Your task to perform on an android device: Show me popular videos on Youtube Image 0: 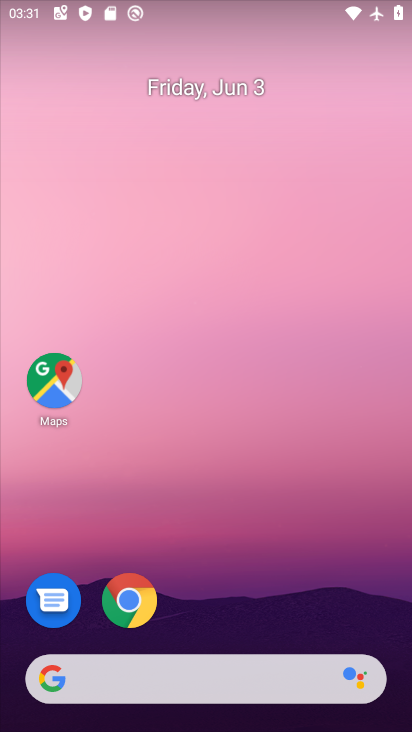
Step 0: drag from (226, 628) to (249, 68)
Your task to perform on an android device: Show me popular videos on Youtube Image 1: 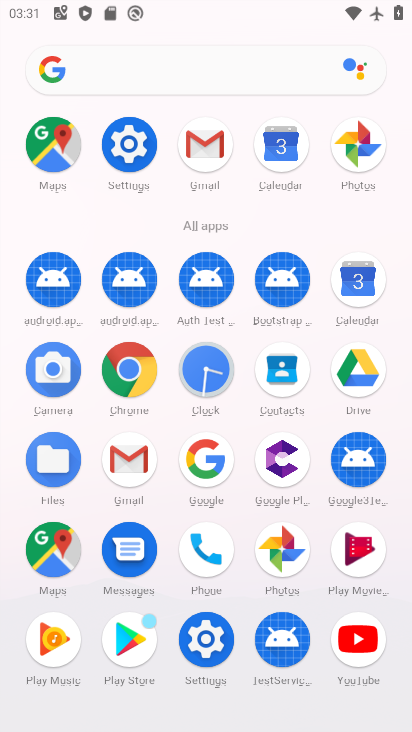
Step 1: click (351, 655)
Your task to perform on an android device: Show me popular videos on Youtube Image 2: 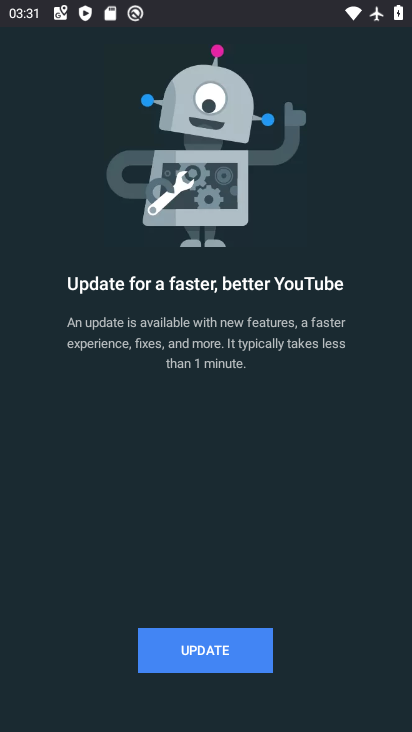
Step 2: click (176, 650)
Your task to perform on an android device: Show me popular videos on Youtube Image 3: 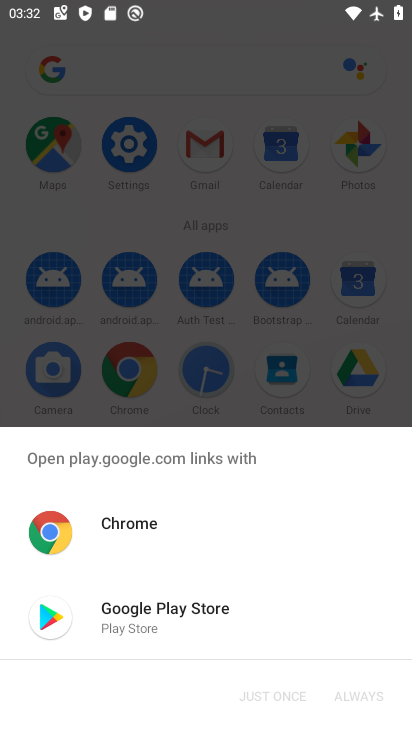
Step 3: click (177, 613)
Your task to perform on an android device: Show me popular videos on Youtube Image 4: 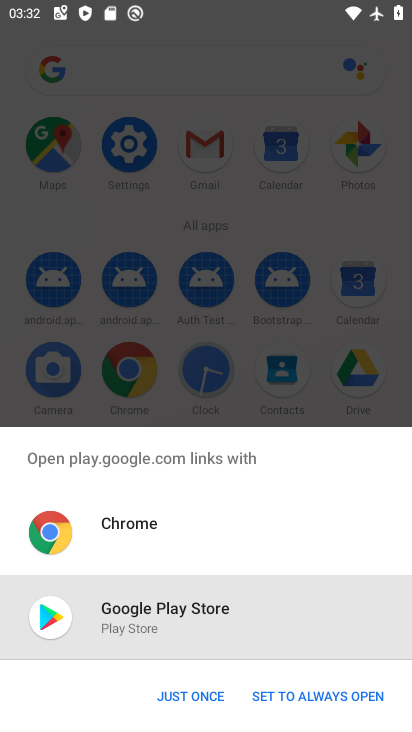
Step 4: click (200, 705)
Your task to perform on an android device: Show me popular videos on Youtube Image 5: 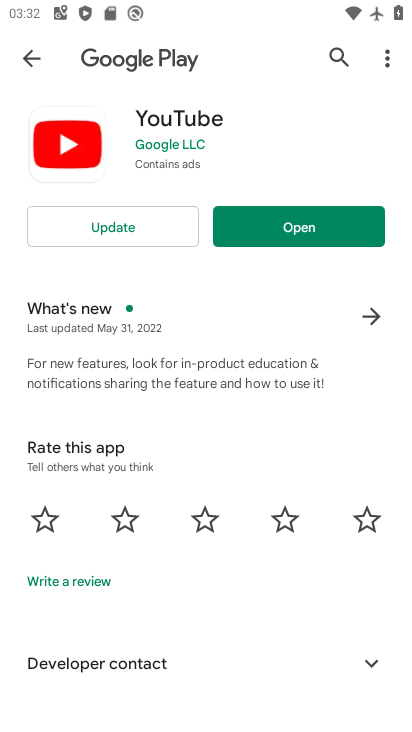
Step 5: click (140, 230)
Your task to perform on an android device: Show me popular videos on Youtube Image 6: 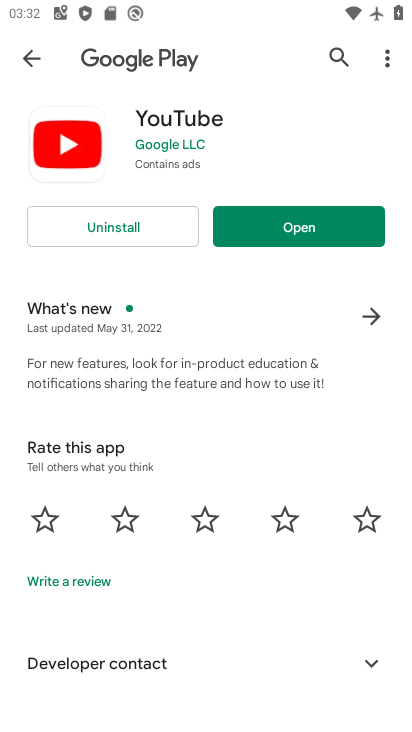
Step 6: click (302, 235)
Your task to perform on an android device: Show me popular videos on Youtube Image 7: 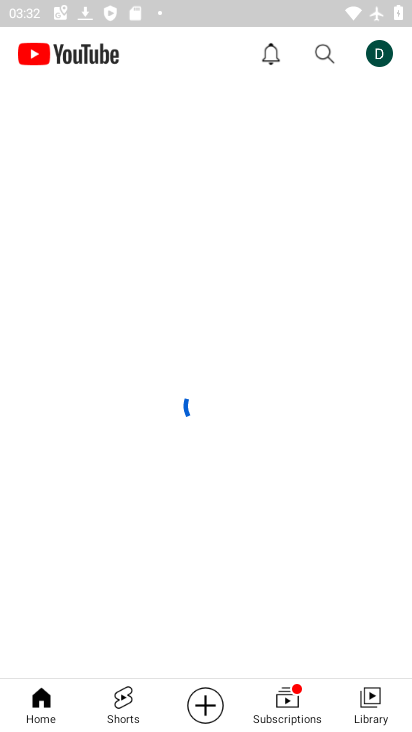
Step 7: click (371, 702)
Your task to perform on an android device: Show me popular videos on Youtube Image 8: 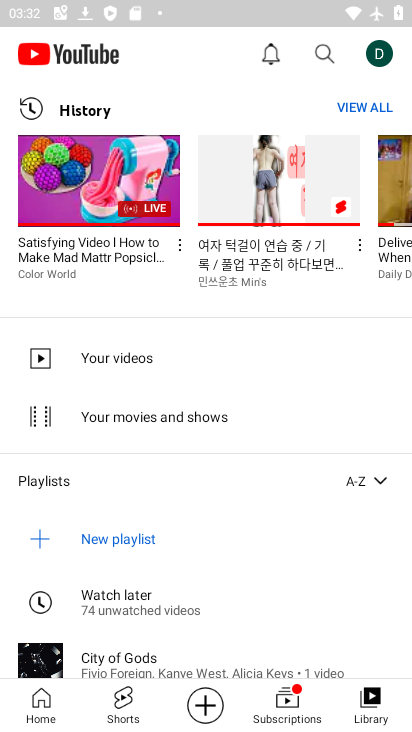
Step 8: click (45, 706)
Your task to perform on an android device: Show me popular videos on Youtube Image 9: 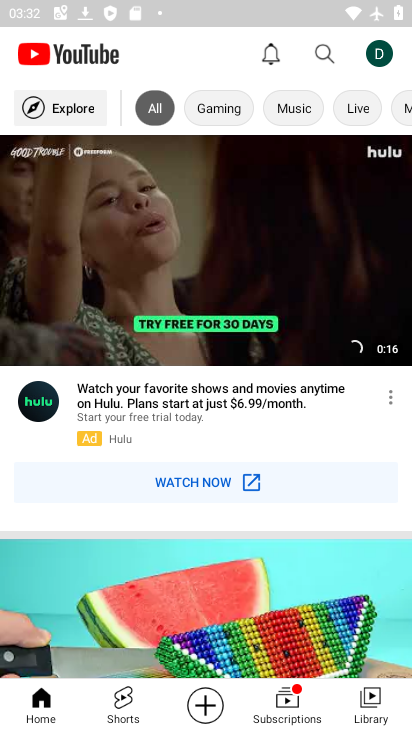
Step 9: click (78, 111)
Your task to perform on an android device: Show me popular videos on Youtube Image 10: 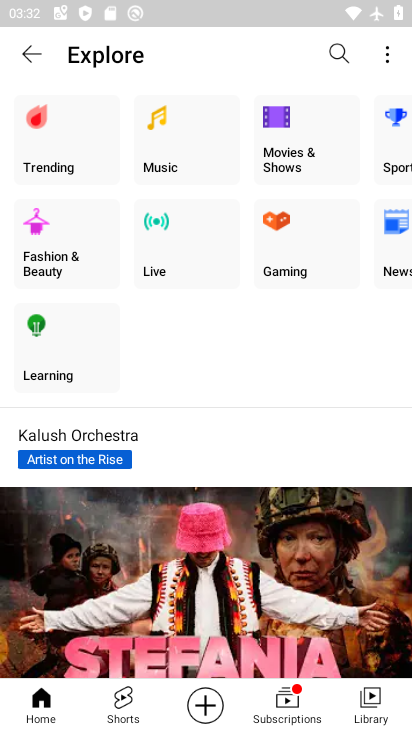
Step 10: click (74, 136)
Your task to perform on an android device: Show me popular videos on Youtube Image 11: 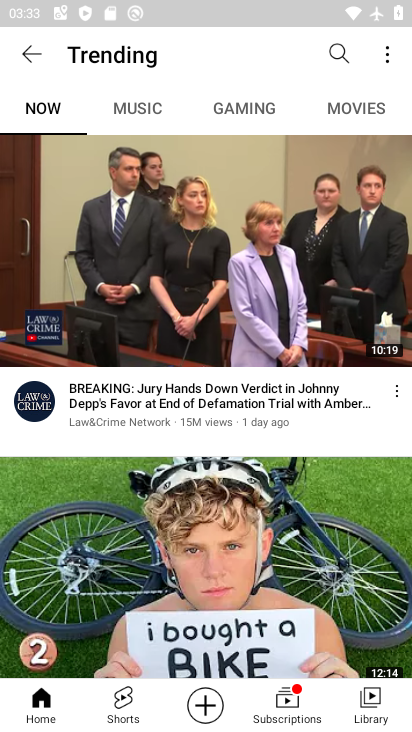
Step 11: task complete